Your task to perform on an android device: Open calendar and show me the third week of next month Image 0: 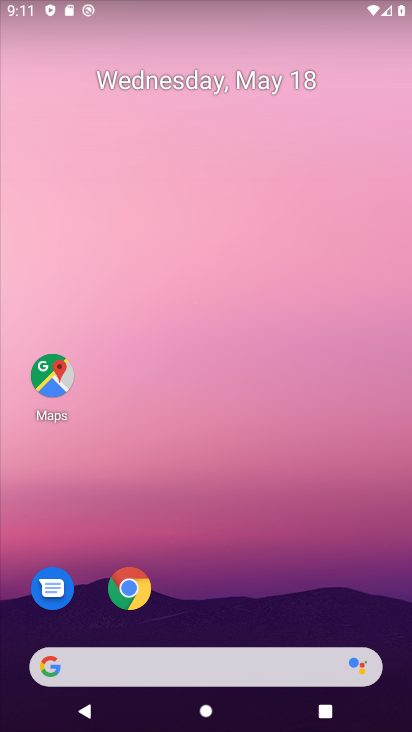
Step 0: drag from (256, 682) to (329, 251)
Your task to perform on an android device: Open calendar and show me the third week of next month Image 1: 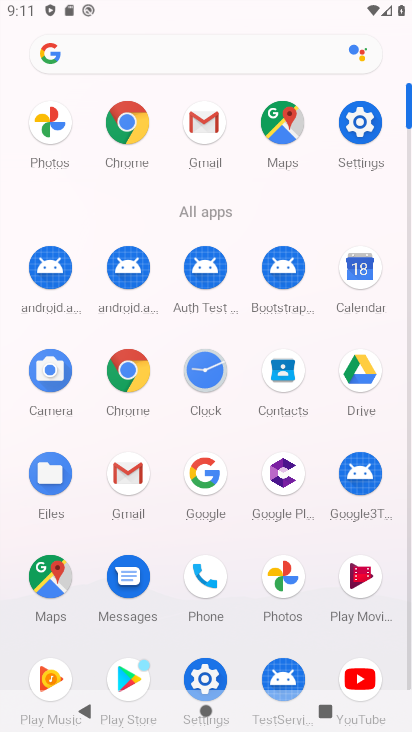
Step 1: click (353, 278)
Your task to perform on an android device: Open calendar and show me the third week of next month Image 2: 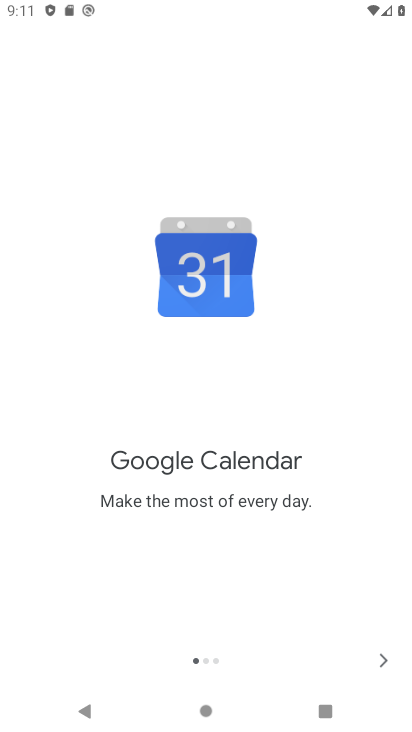
Step 2: click (378, 668)
Your task to perform on an android device: Open calendar and show me the third week of next month Image 3: 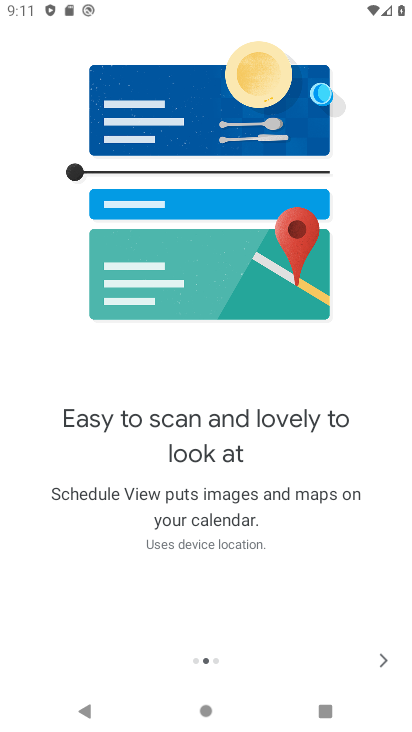
Step 3: click (377, 660)
Your task to perform on an android device: Open calendar and show me the third week of next month Image 4: 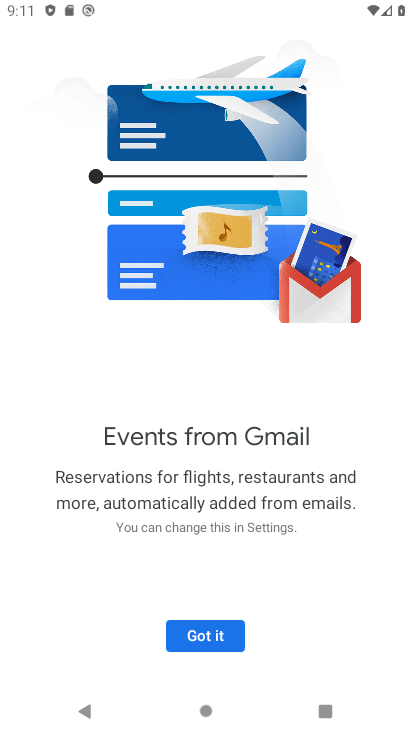
Step 4: click (211, 638)
Your task to perform on an android device: Open calendar and show me the third week of next month Image 5: 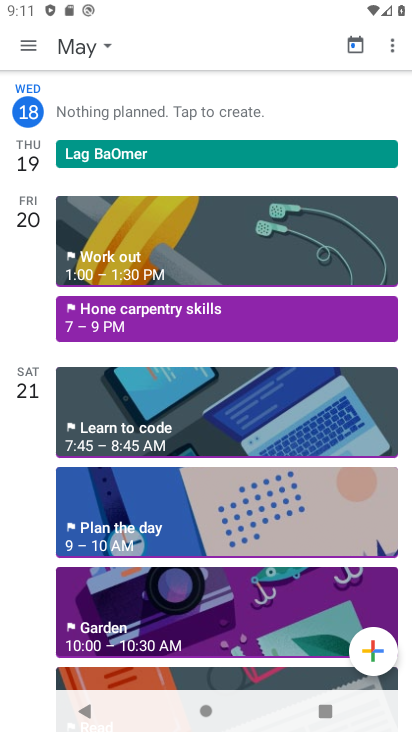
Step 5: click (35, 51)
Your task to perform on an android device: Open calendar and show me the third week of next month Image 6: 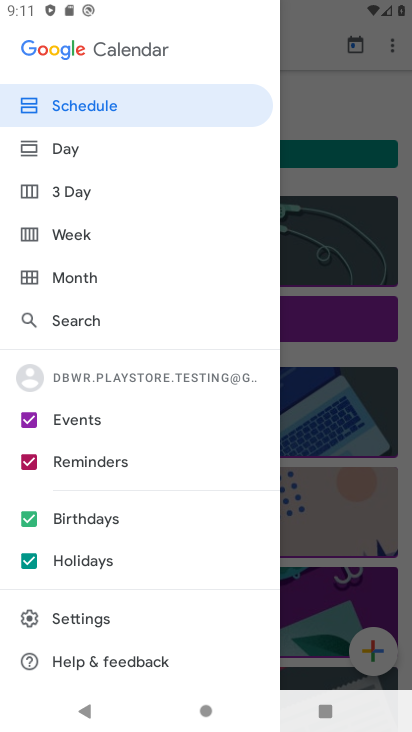
Step 6: click (97, 285)
Your task to perform on an android device: Open calendar and show me the third week of next month Image 7: 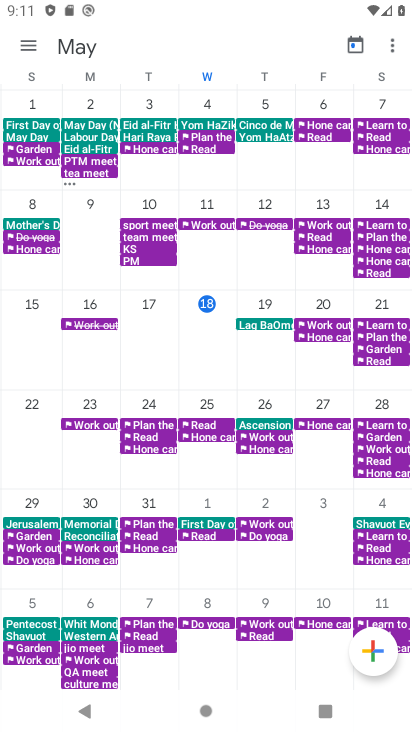
Step 7: drag from (366, 462) to (6, 422)
Your task to perform on an android device: Open calendar and show me the third week of next month Image 8: 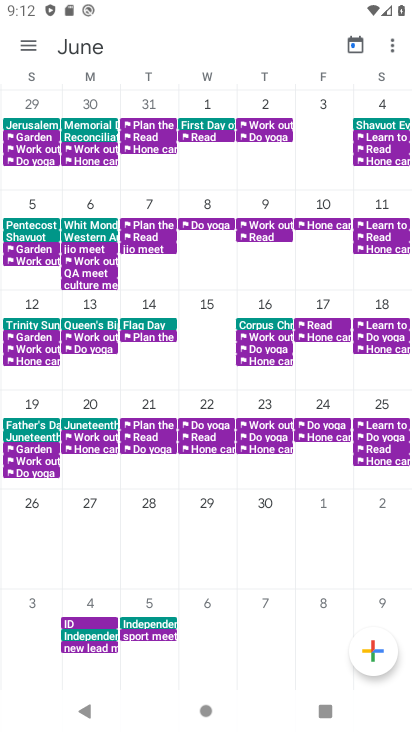
Step 8: click (87, 317)
Your task to perform on an android device: Open calendar and show me the third week of next month Image 9: 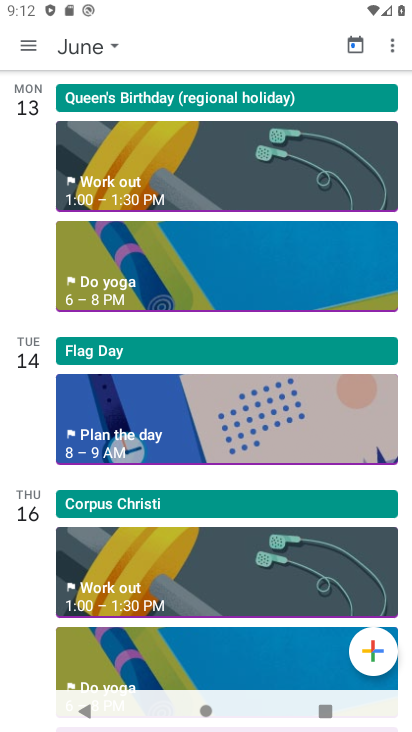
Step 9: task complete